Your task to perform on an android device: change the upload size in google photos Image 0: 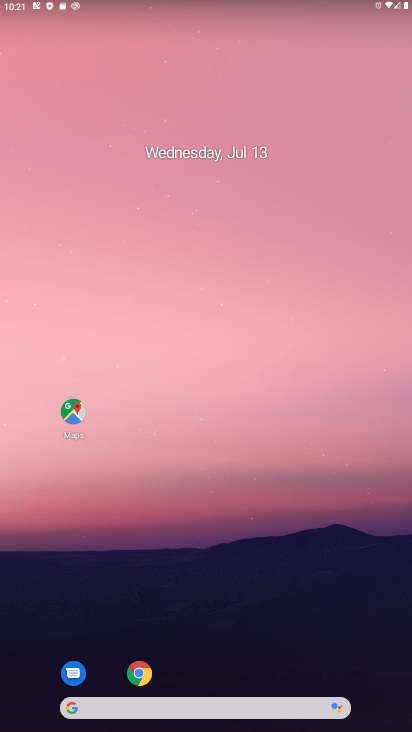
Step 0: drag from (189, 665) to (256, 14)
Your task to perform on an android device: change the upload size in google photos Image 1: 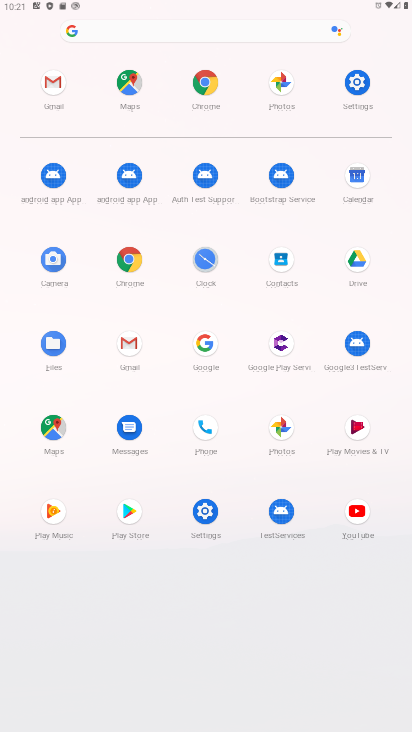
Step 1: click (288, 81)
Your task to perform on an android device: change the upload size in google photos Image 2: 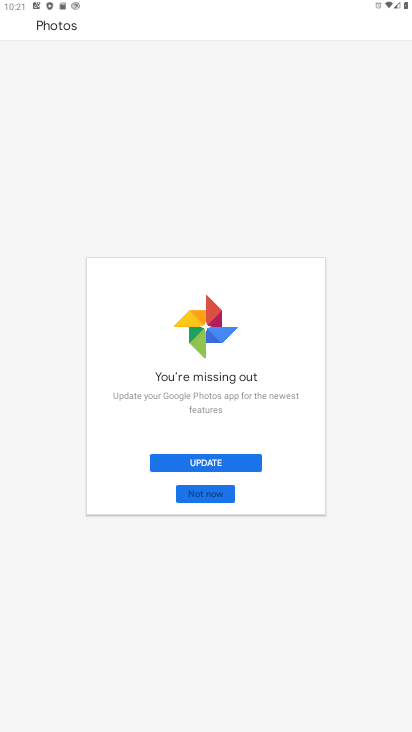
Step 2: click (194, 487)
Your task to perform on an android device: change the upload size in google photos Image 3: 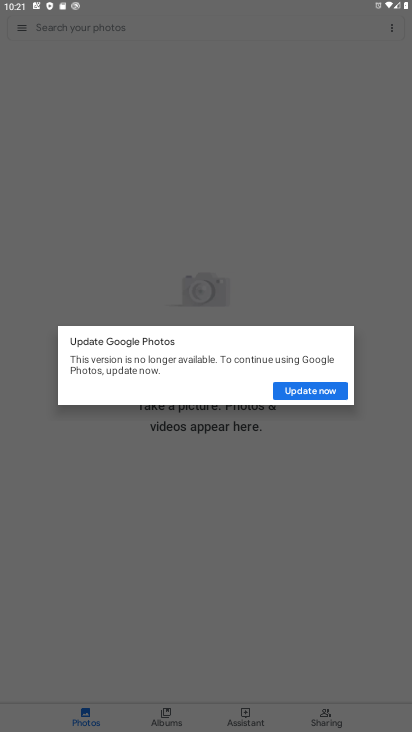
Step 3: click (323, 395)
Your task to perform on an android device: change the upload size in google photos Image 4: 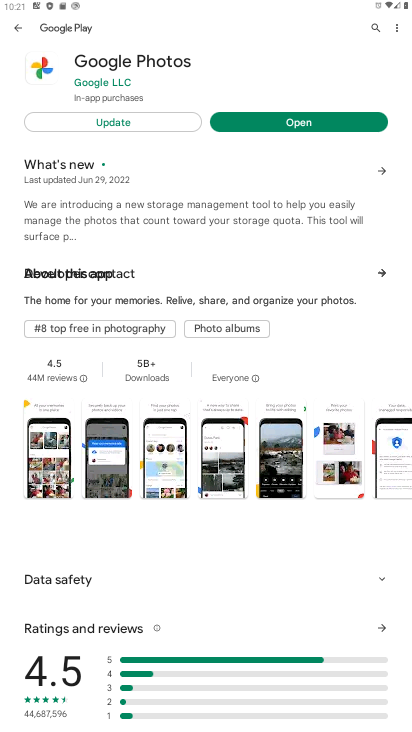
Step 4: click (302, 130)
Your task to perform on an android device: change the upload size in google photos Image 5: 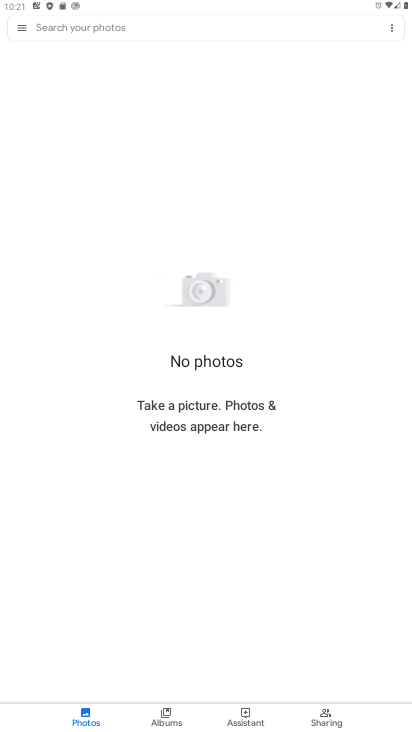
Step 5: click (23, 21)
Your task to perform on an android device: change the upload size in google photos Image 6: 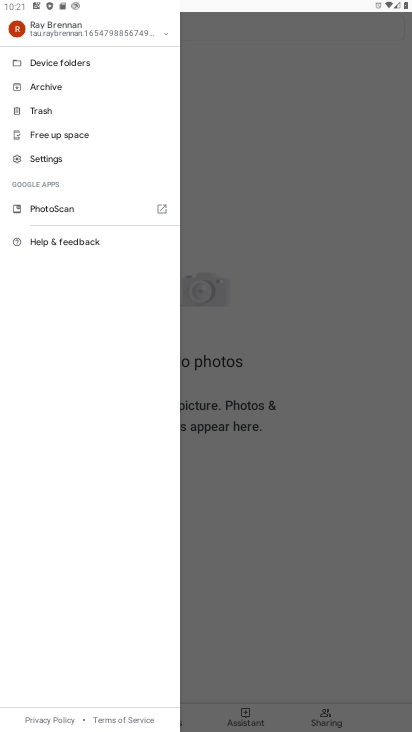
Step 6: click (75, 162)
Your task to perform on an android device: change the upload size in google photos Image 7: 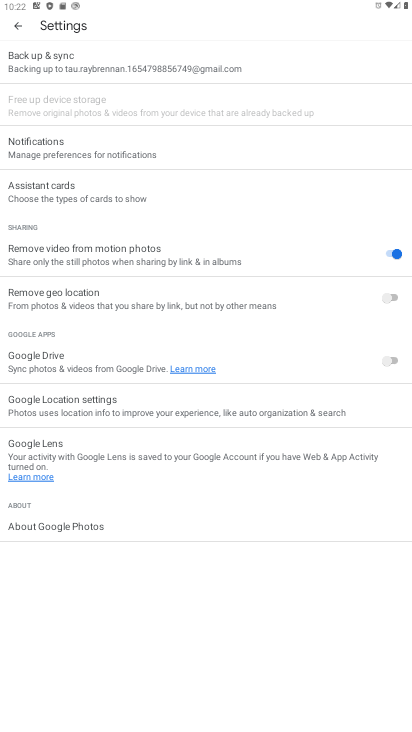
Step 7: click (214, 76)
Your task to perform on an android device: change the upload size in google photos Image 8: 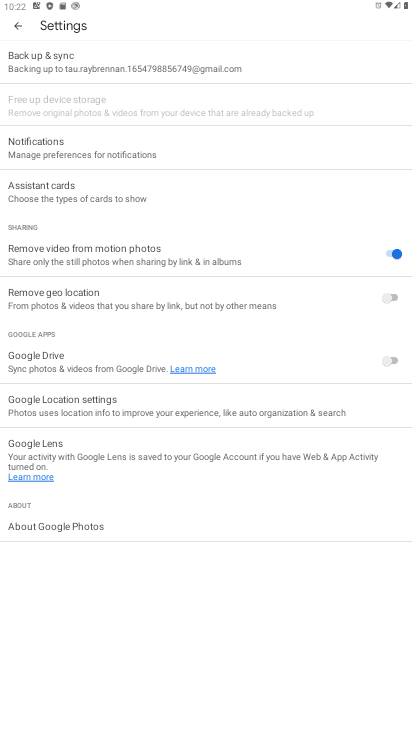
Step 8: click (214, 76)
Your task to perform on an android device: change the upload size in google photos Image 9: 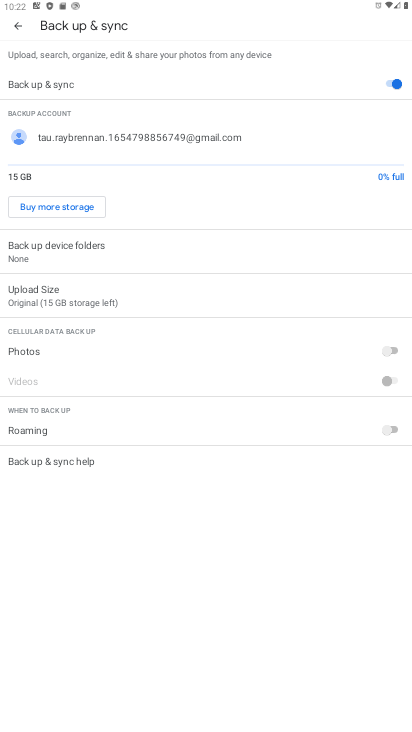
Step 9: click (233, 305)
Your task to perform on an android device: change the upload size in google photos Image 10: 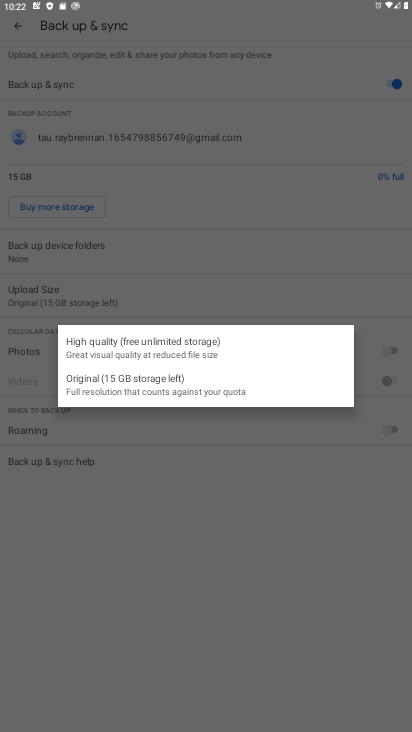
Step 10: click (178, 337)
Your task to perform on an android device: change the upload size in google photos Image 11: 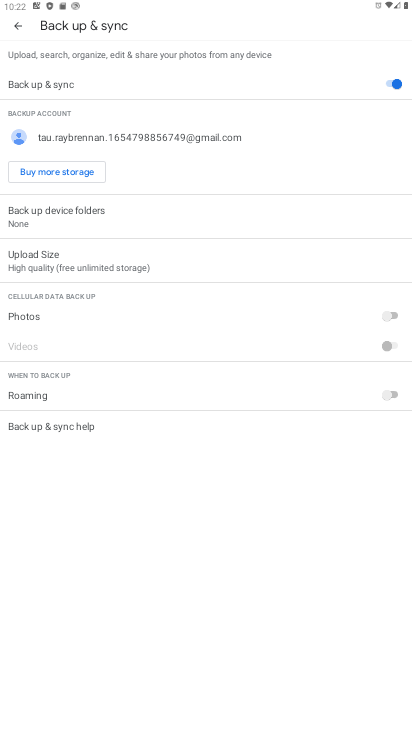
Step 11: task complete